Your task to perform on an android device: turn on the 12-hour format for clock Image 0: 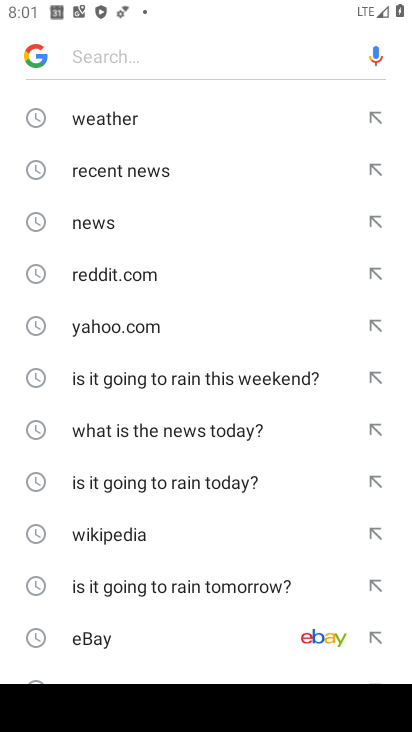
Step 0: press home button
Your task to perform on an android device: turn on the 12-hour format for clock Image 1: 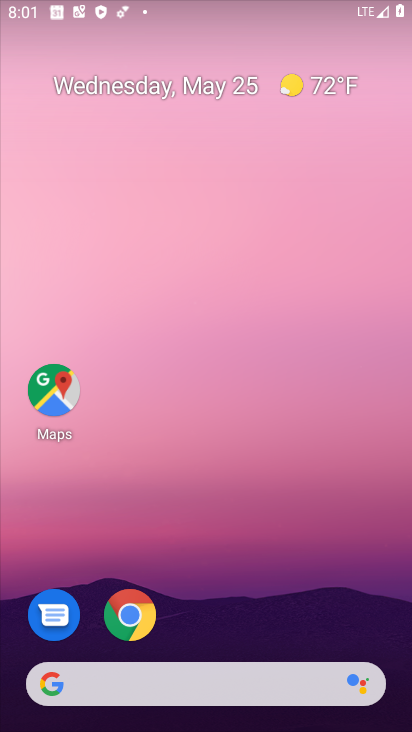
Step 1: drag from (276, 546) to (271, 42)
Your task to perform on an android device: turn on the 12-hour format for clock Image 2: 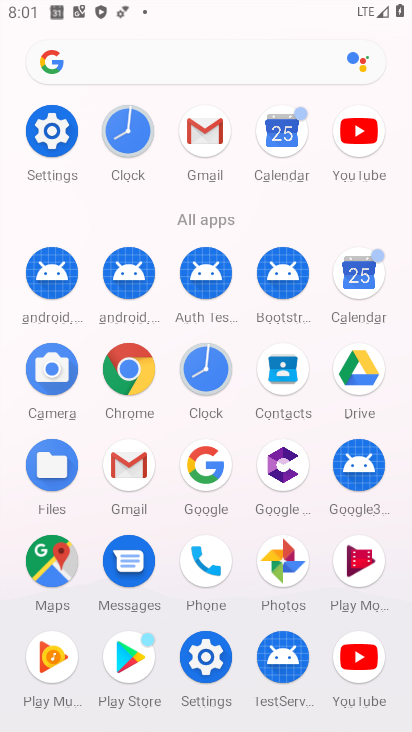
Step 2: click (125, 121)
Your task to perform on an android device: turn on the 12-hour format for clock Image 3: 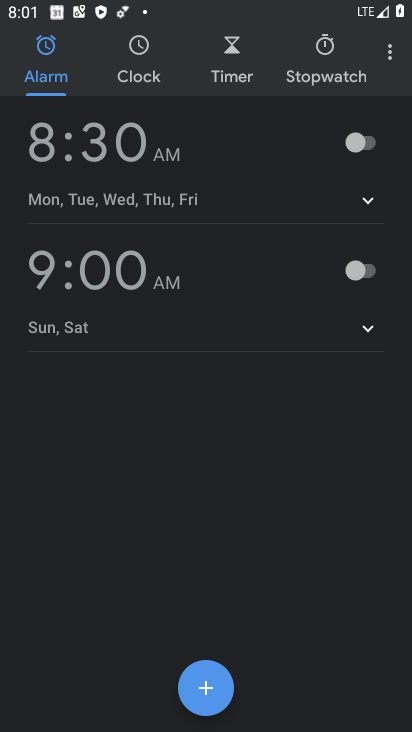
Step 3: click (389, 57)
Your task to perform on an android device: turn on the 12-hour format for clock Image 4: 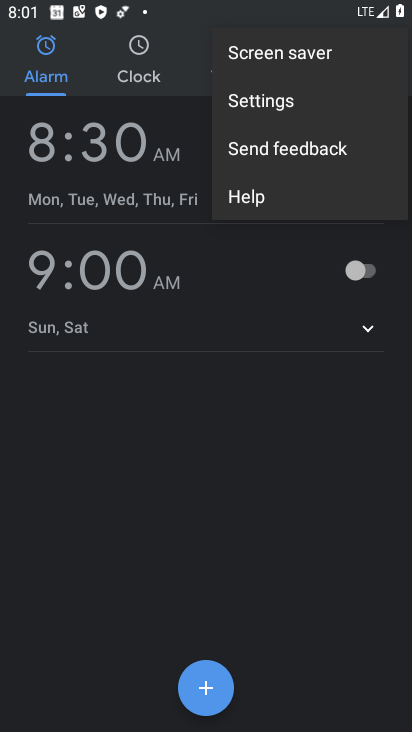
Step 4: click (311, 95)
Your task to perform on an android device: turn on the 12-hour format for clock Image 5: 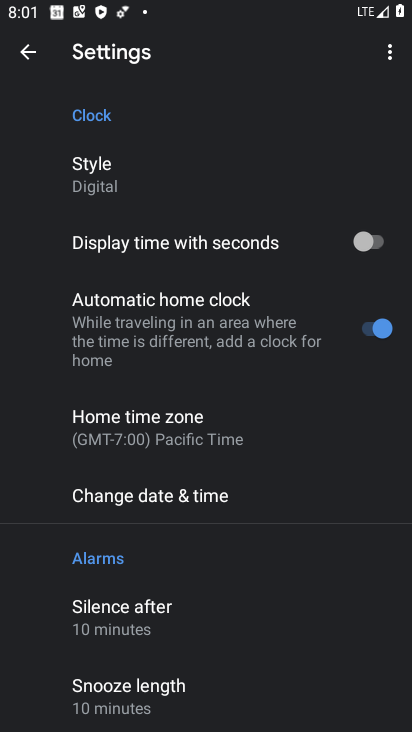
Step 5: click (257, 503)
Your task to perform on an android device: turn on the 12-hour format for clock Image 6: 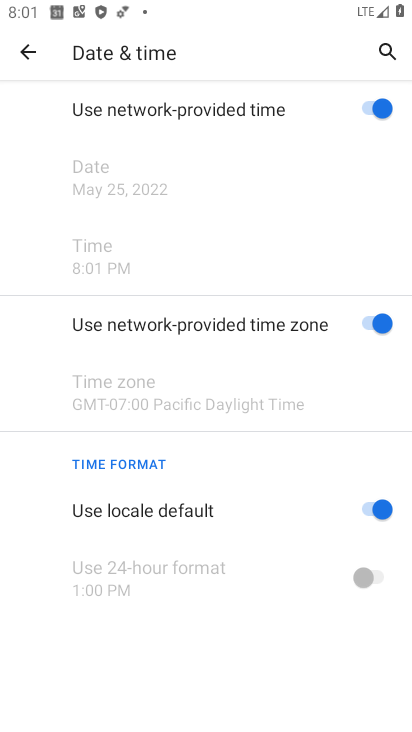
Step 6: task complete